Your task to perform on an android device: move a message to another label in the gmail app Image 0: 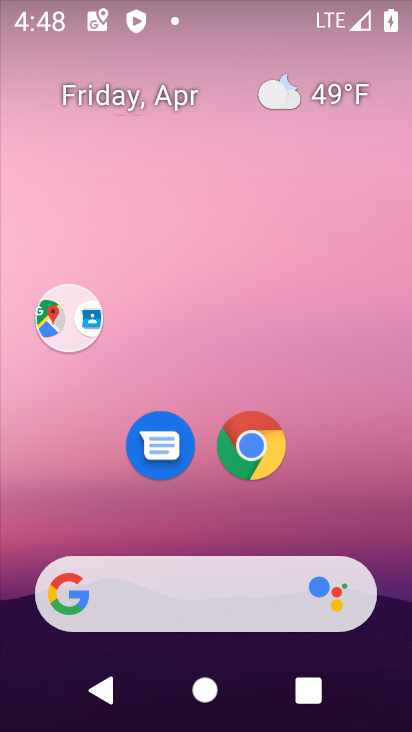
Step 0: drag from (359, 322) to (347, 41)
Your task to perform on an android device: move a message to another label in the gmail app Image 1: 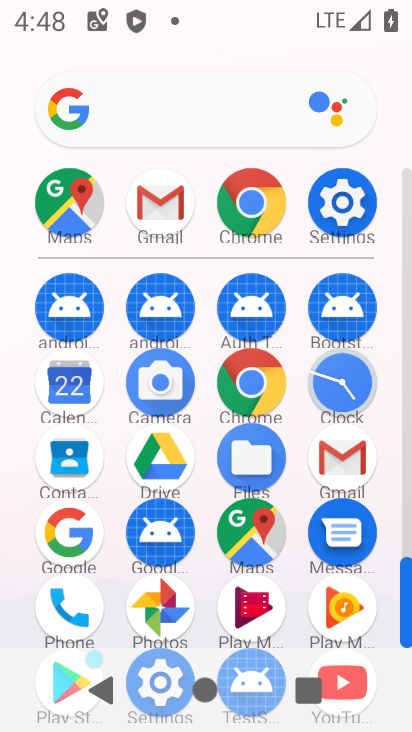
Step 1: drag from (198, 629) to (213, 404)
Your task to perform on an android device: move a message to another label in the gmail app Image 2: 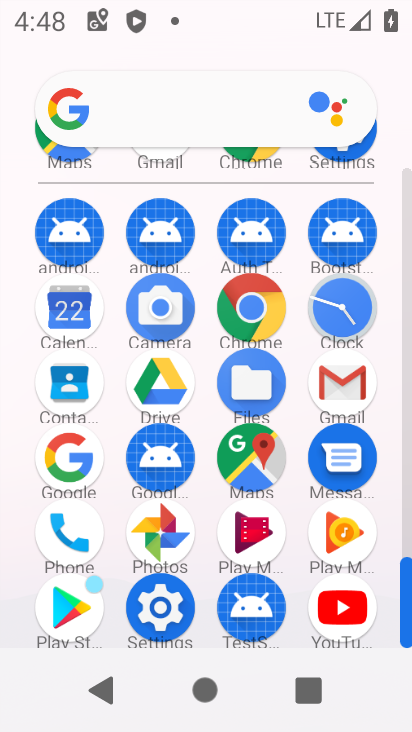
Step 2: click (347, 387)
Your task to perform on an android device: move a message to another label in the gmail app Image 3: 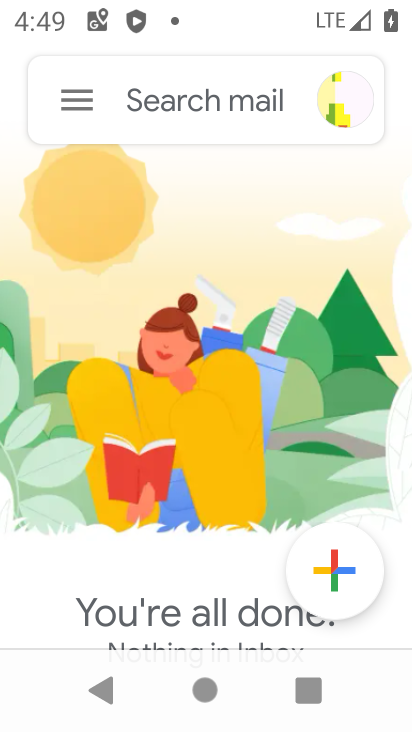
Step 3: click (82, 93)
Your task to perform on an android device: move a message to another label in the gmail app Image 4: 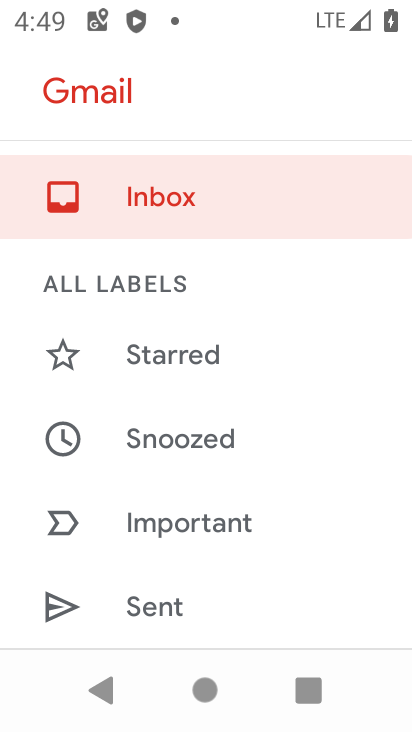
Step 4: drag from (179, 414) to (237, 104)
Your task to perform on an android device: move a message to another label in the gmail app Image 5: 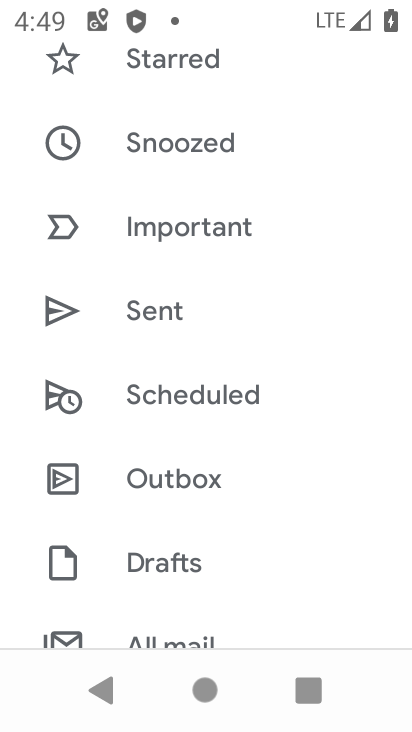
Step 5: drag from (175, 517) to (234, 298)
Your task to perform on an android device: move a message to another label in the gmail app Image 6: 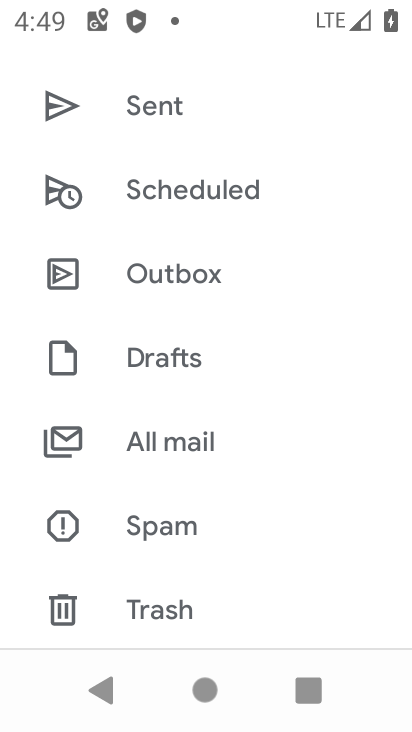
Step 6: click (171, 448)
Your task to perform on an android device: move a message to another label in the gmail app Image 7: 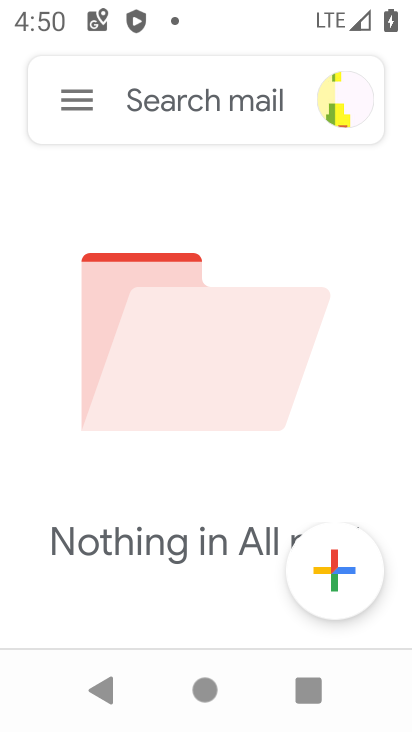
Step 7: task complete